Your task to perform on an android device: toggle translation in the chrome app Image 0: 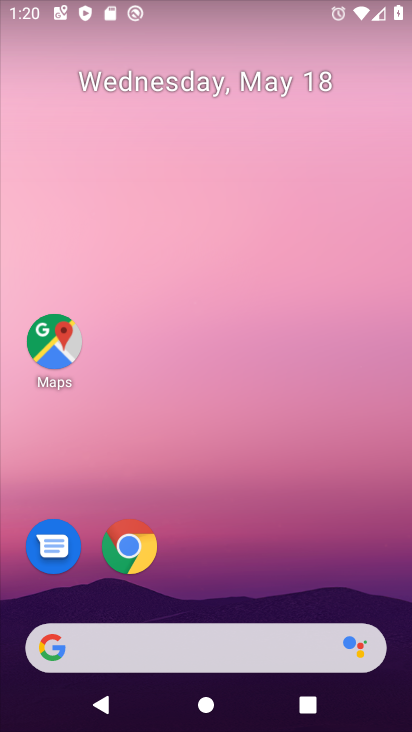
Step 0: click (144, 567)
Your task to perform on an android device: toggle translation in the chrome app Image 1: 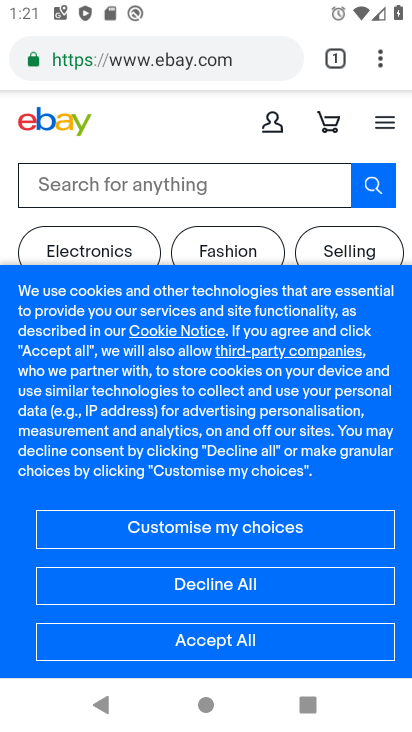
Step 1: click (368, 50)
Your task to perform on an android device: toggle translation in the chrome app Image 2: 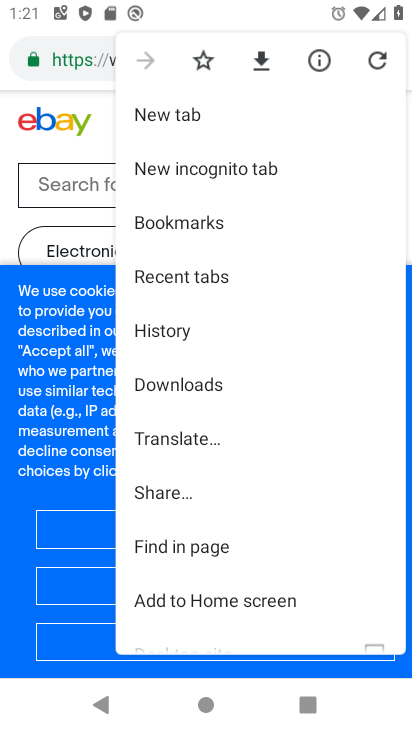
Step 2: click (211, 436)
Your task to perform on an android device: toggle translation in the chrome app Image 3: 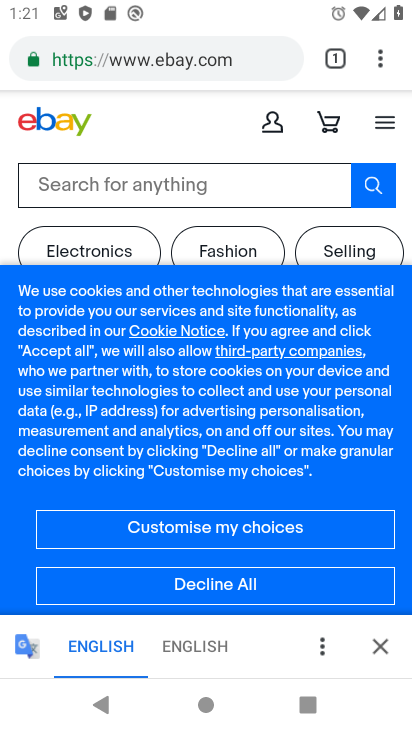
Step 3: click (320, 646)
Your task to perform on an android device: toggle translation in the chrome app Image 4: 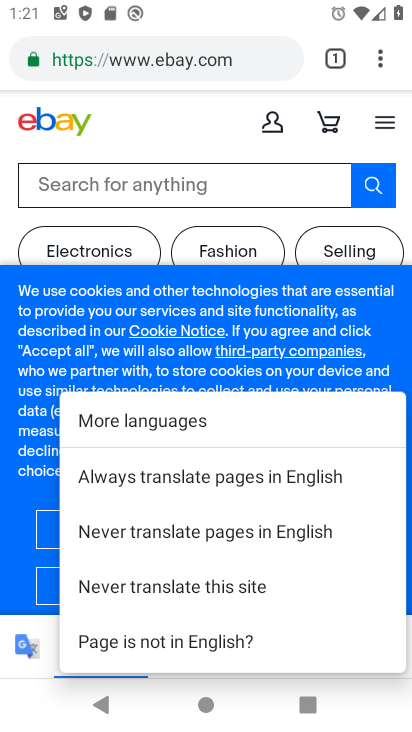
Step 4: click (181, 596)
Your task to perform on an android device: toggle translation in the chrome app Image 5: 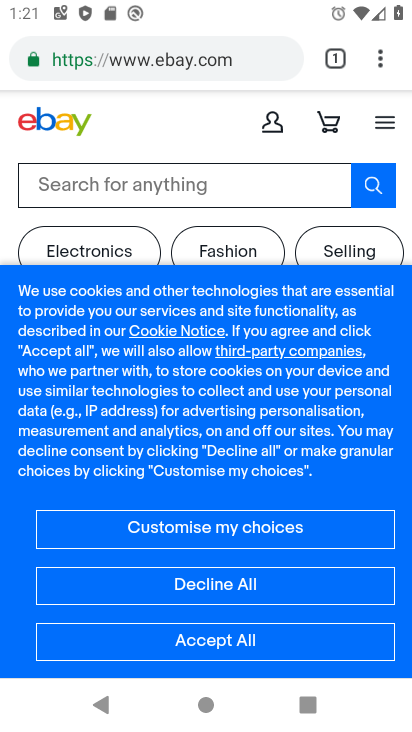
Step 5: task complete